Your task to perform on an android device: read, delete, or share a saved page in the chrome app Image 0: 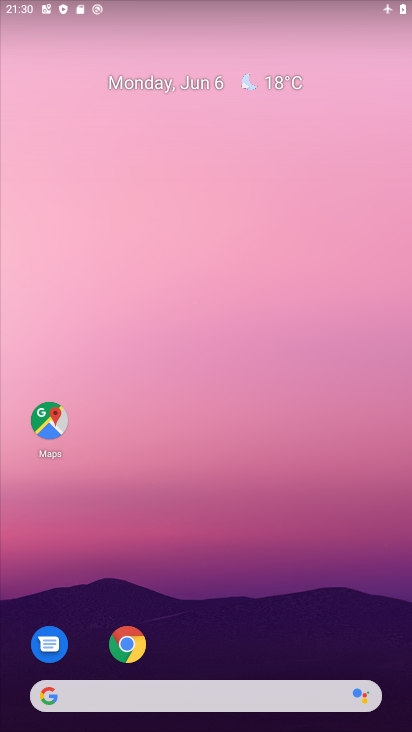
Step 0: press home button
Your task to perform on an android device: read, delete, or share a saved page in the chrome app Image 1: 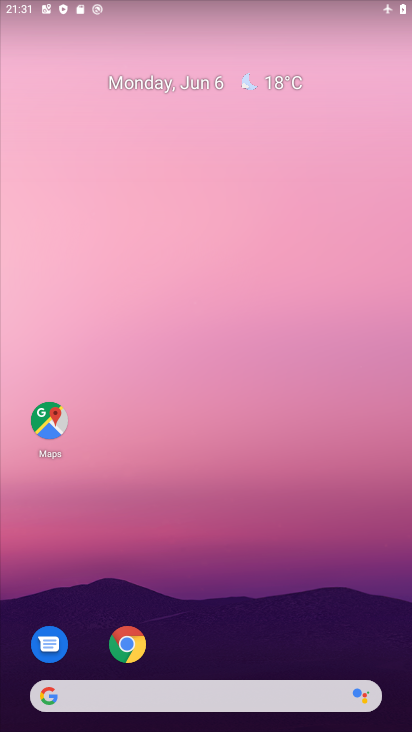
Step 1: drag from (317, 606) to (324, 171)
Your task to perform on an android device: read, delete, or share a saved page in the chrome app Image 2: 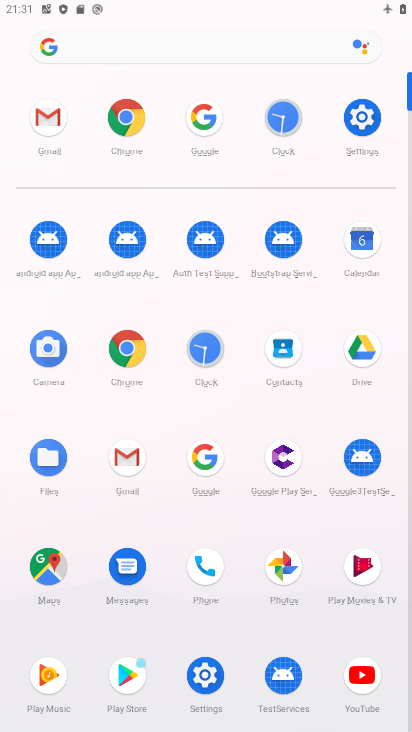
Step 2: click (134, 355)
Your task to perform on an android device: read, delete, or share a saved page in the chrome app Image 3: 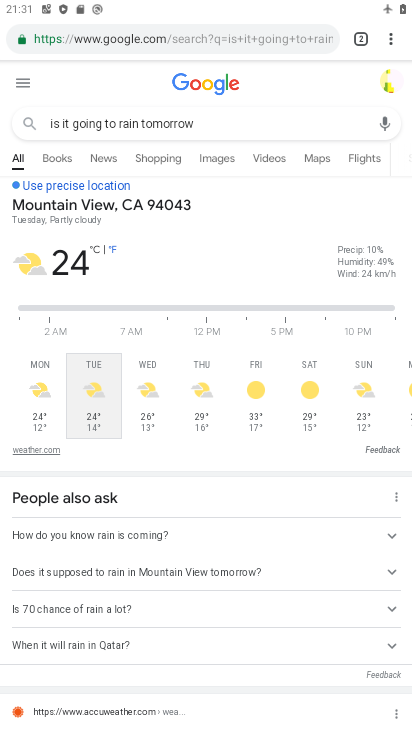
Step 3: drag from (394, 50) to (293, 155)
Your task to perform on an android device: read, delete, or share a saved page in the chrome app Image 4: 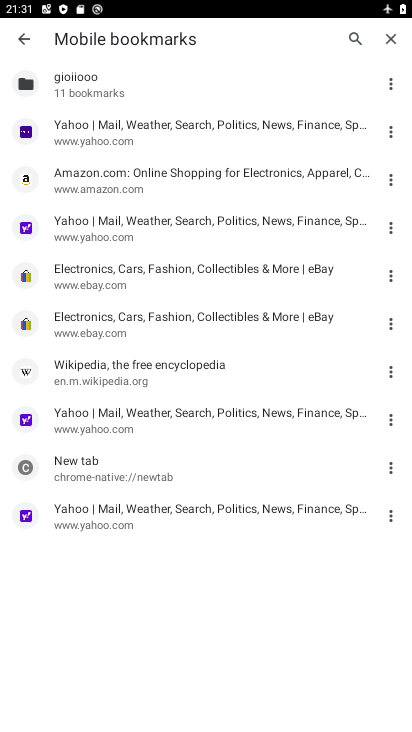
Step 4: click (397, 86)
Your task to perform on an android device: read, delete, or share a saved page in the chrome app Image 5: 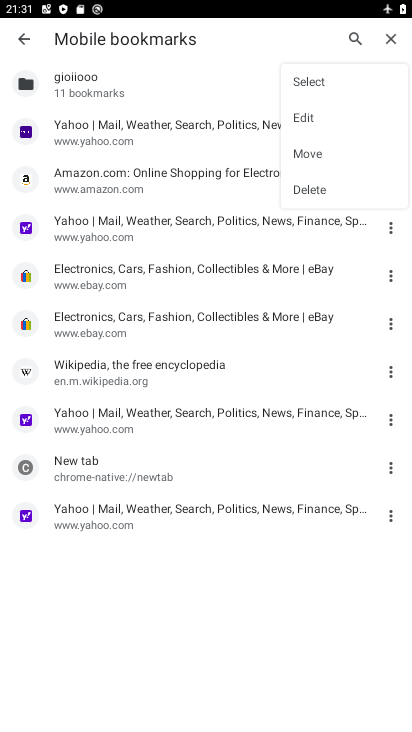
Step 5: click (305, 189)
Your task to perform on an android device: read, delete, or share a saved page in the chrome app Image 6: 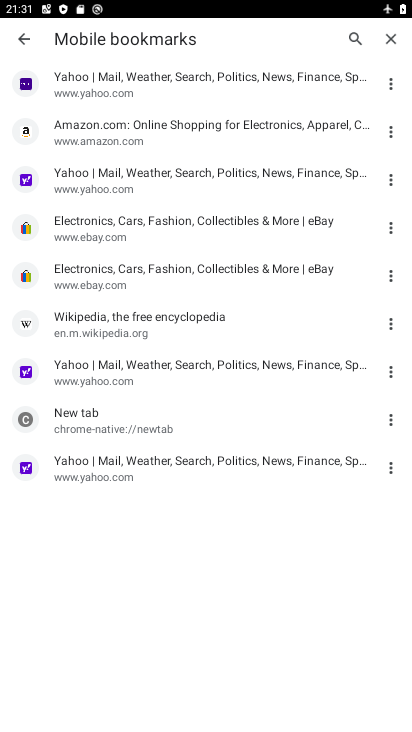
Step 6: task complete